Your task to perform on an android device: Open Google Maps Image 0: 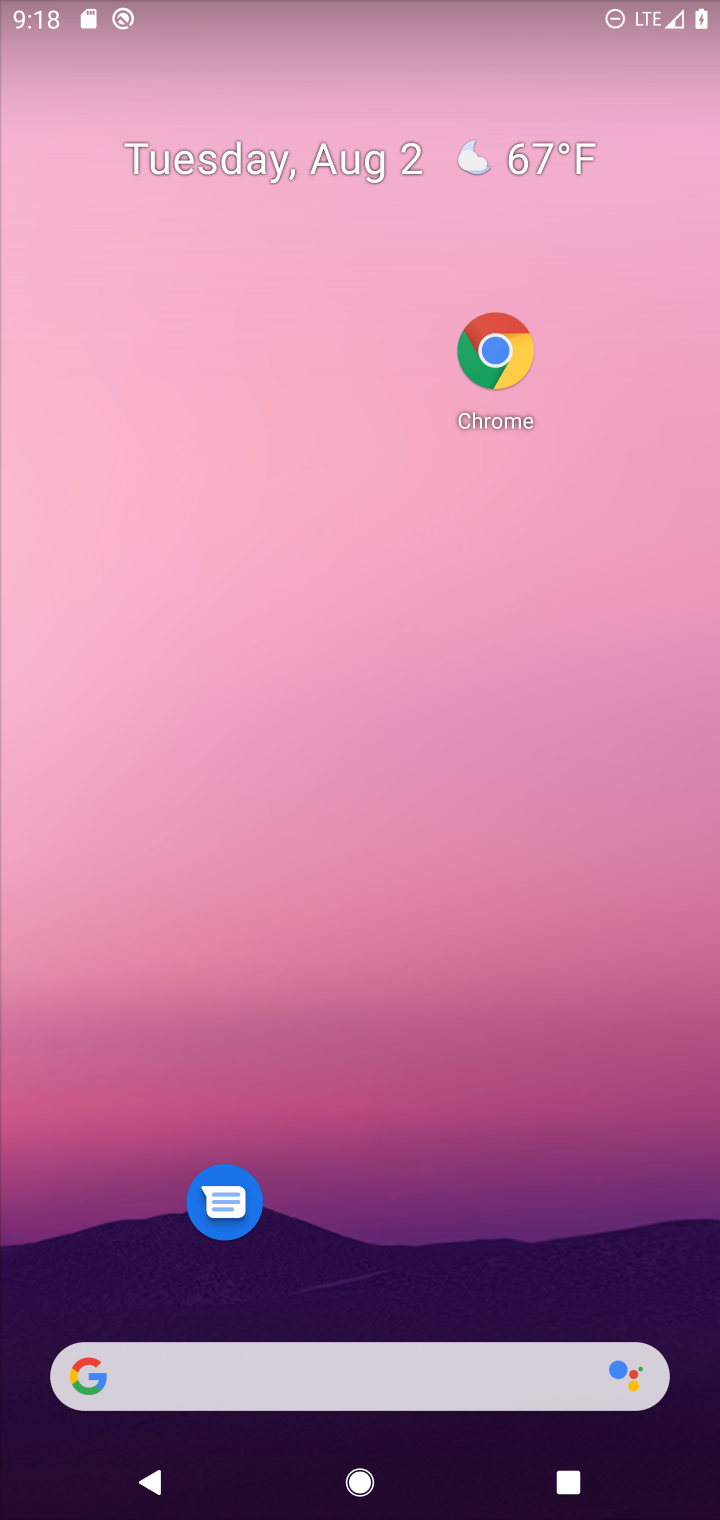
Step 0: drag from (361, 974) to (370, 31)
Your task to perform on an android device: Open Google Maps Image 1: 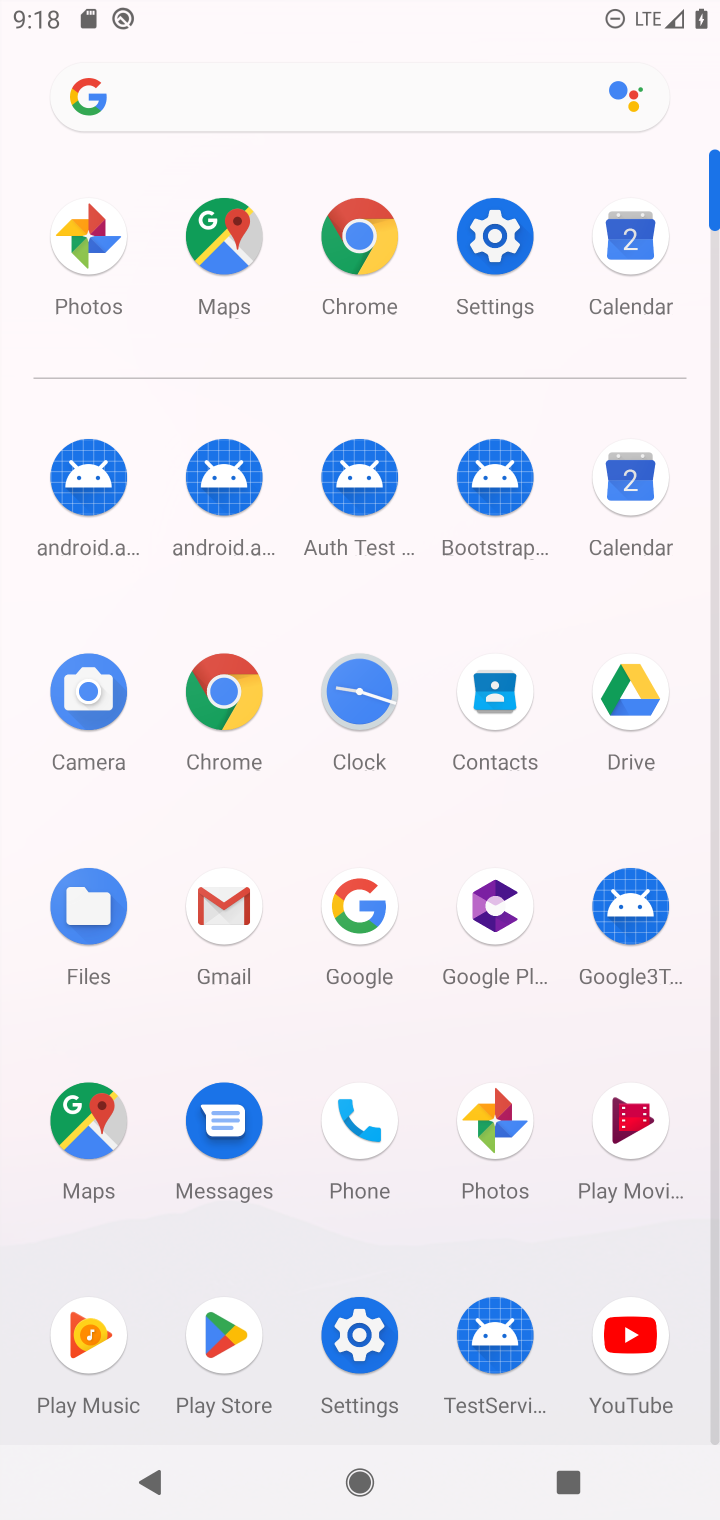
Step 1: click (112, 1140)
Your task to perform on an android device: Open Google Maps Image 2: 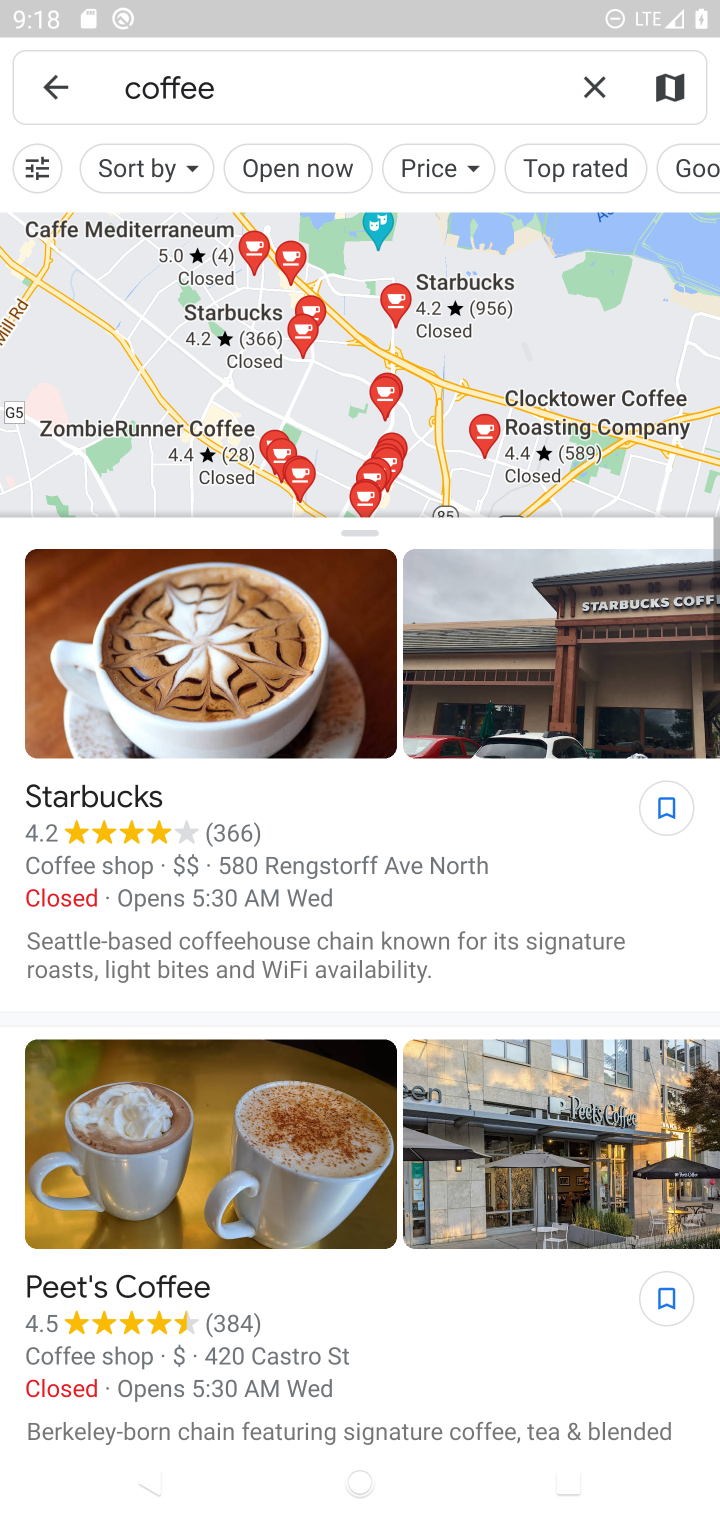
Step 2: task complete